Your task to perform on an android device: Set an alarm for 7pm Image 0: 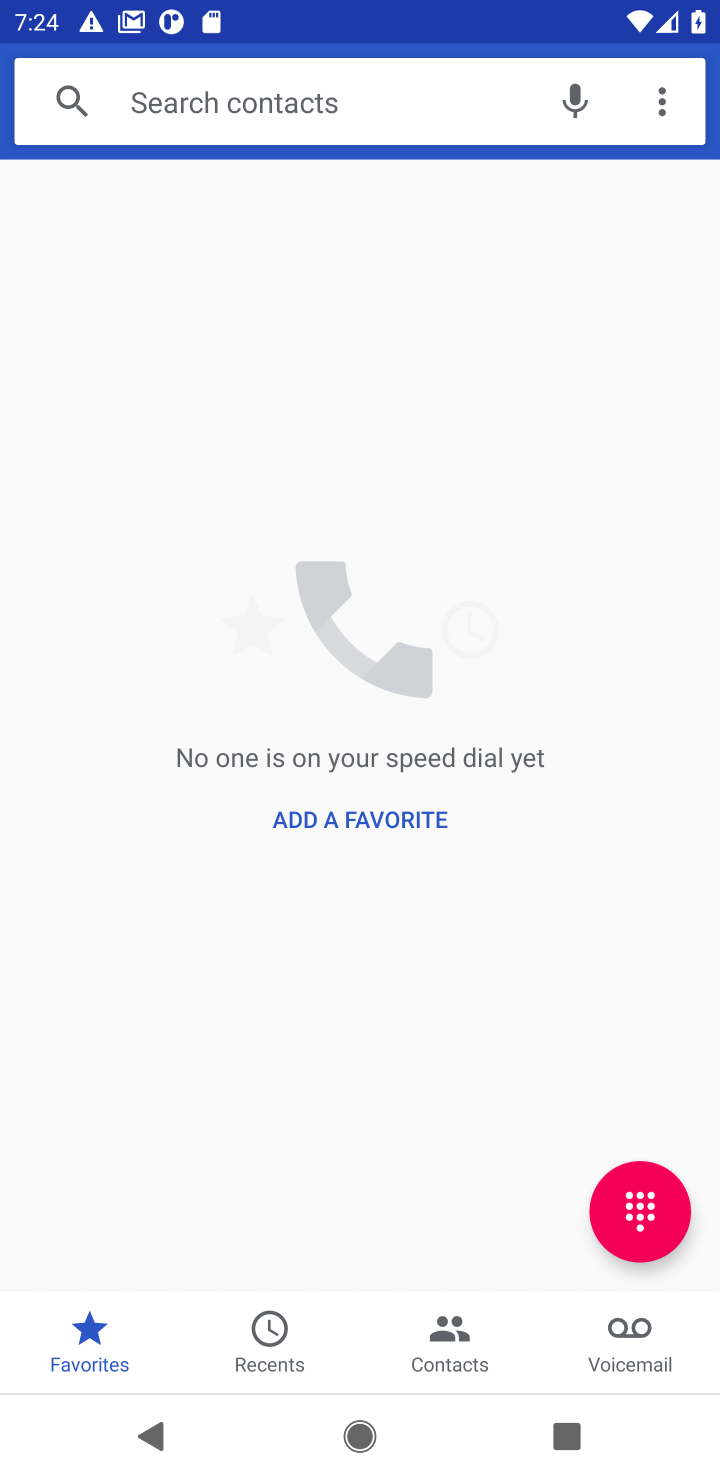
Step 0: press home button
Your task to perform on an android device: Set an alarm for 7pm Image 1: 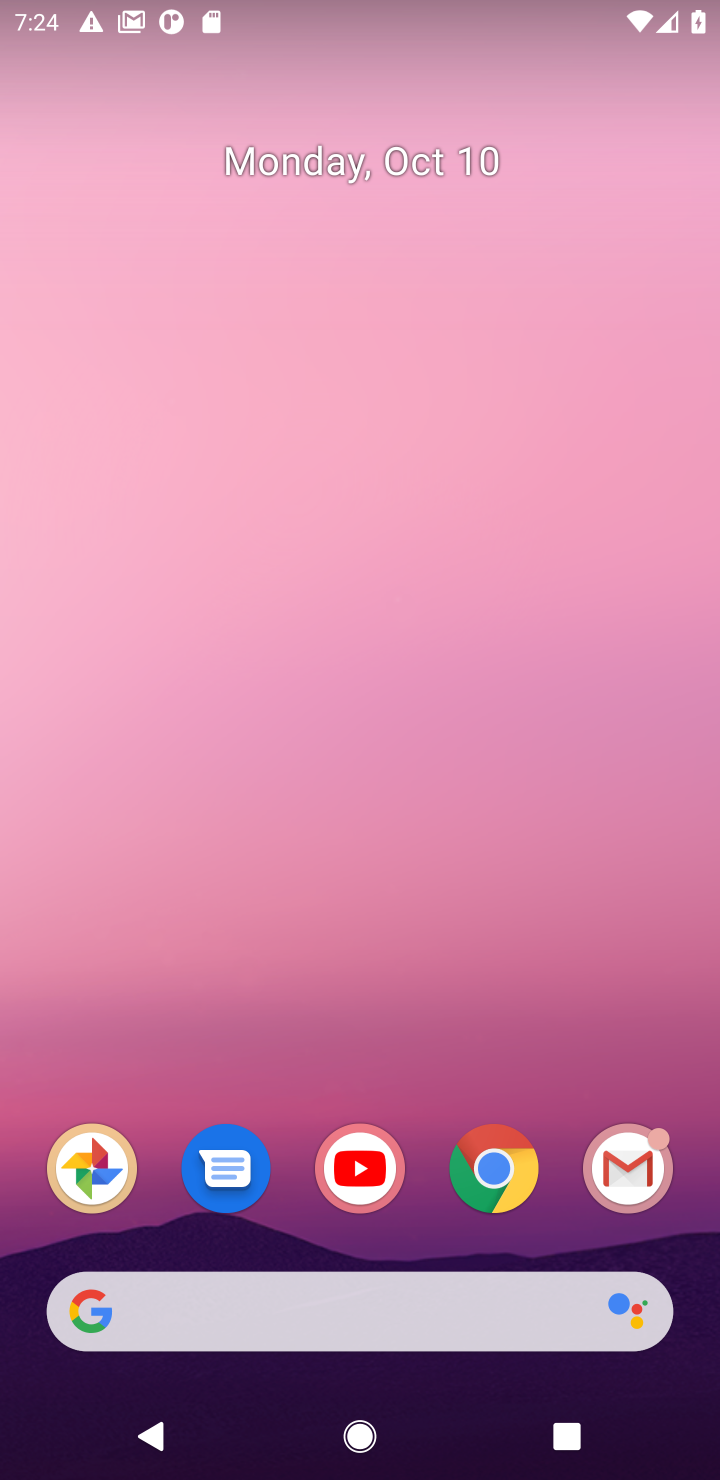
Step 1: drag from (398, 944) to (388, 51)
Your task to perform on an android device: Set an alarm for 7pm Image 2: 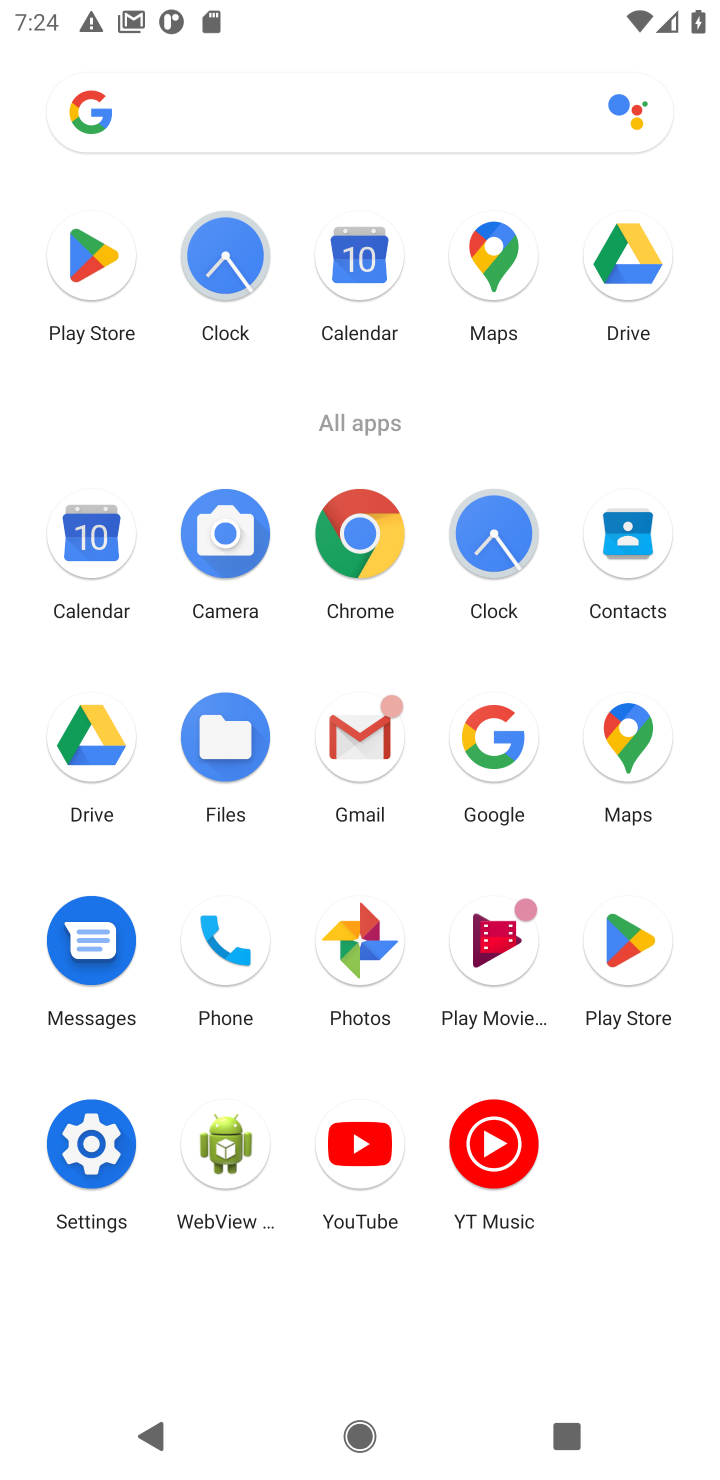
Step 2: click (224, 271)
Your task to perform on an android device: Set an alarm for 7pm Image 3: 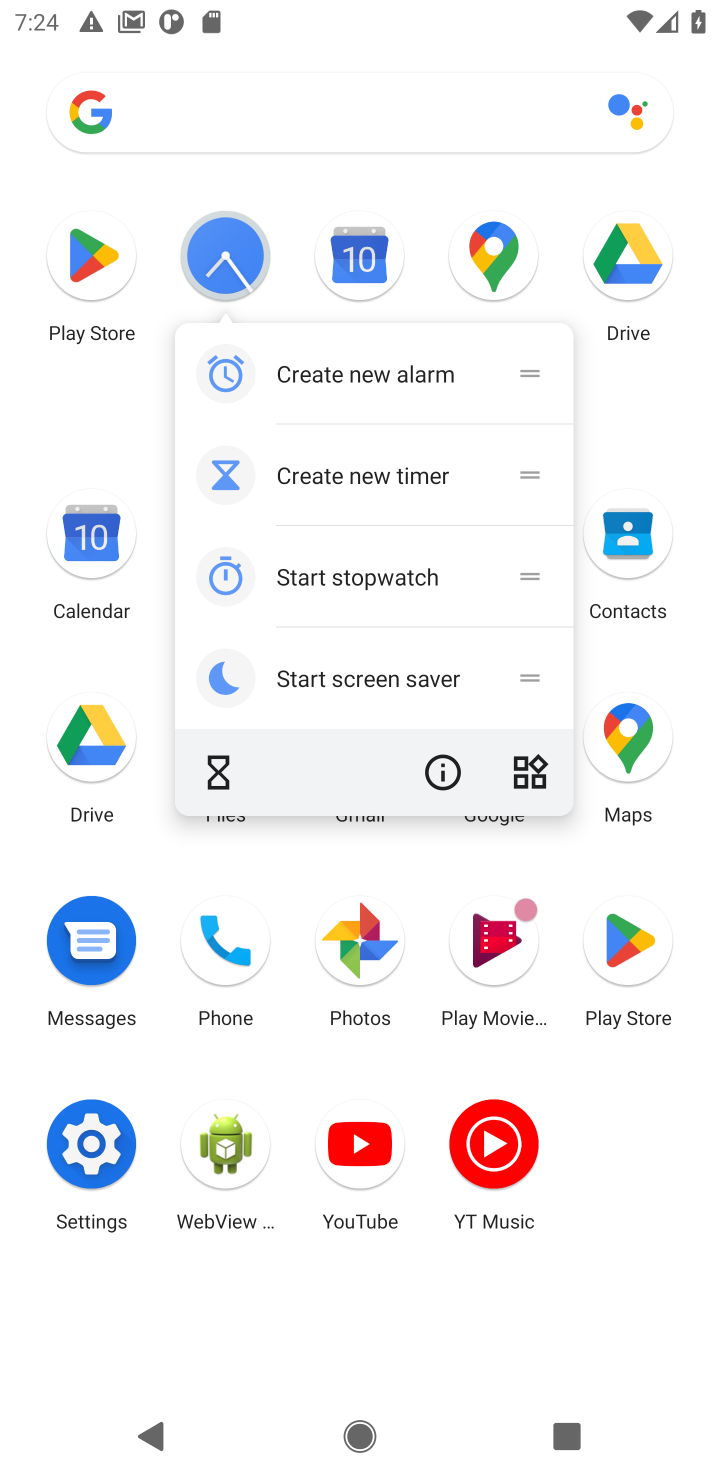
Step 3: click (226, 271)
Your task to perform on an android device: Set an alarm for 7pm Image 4: 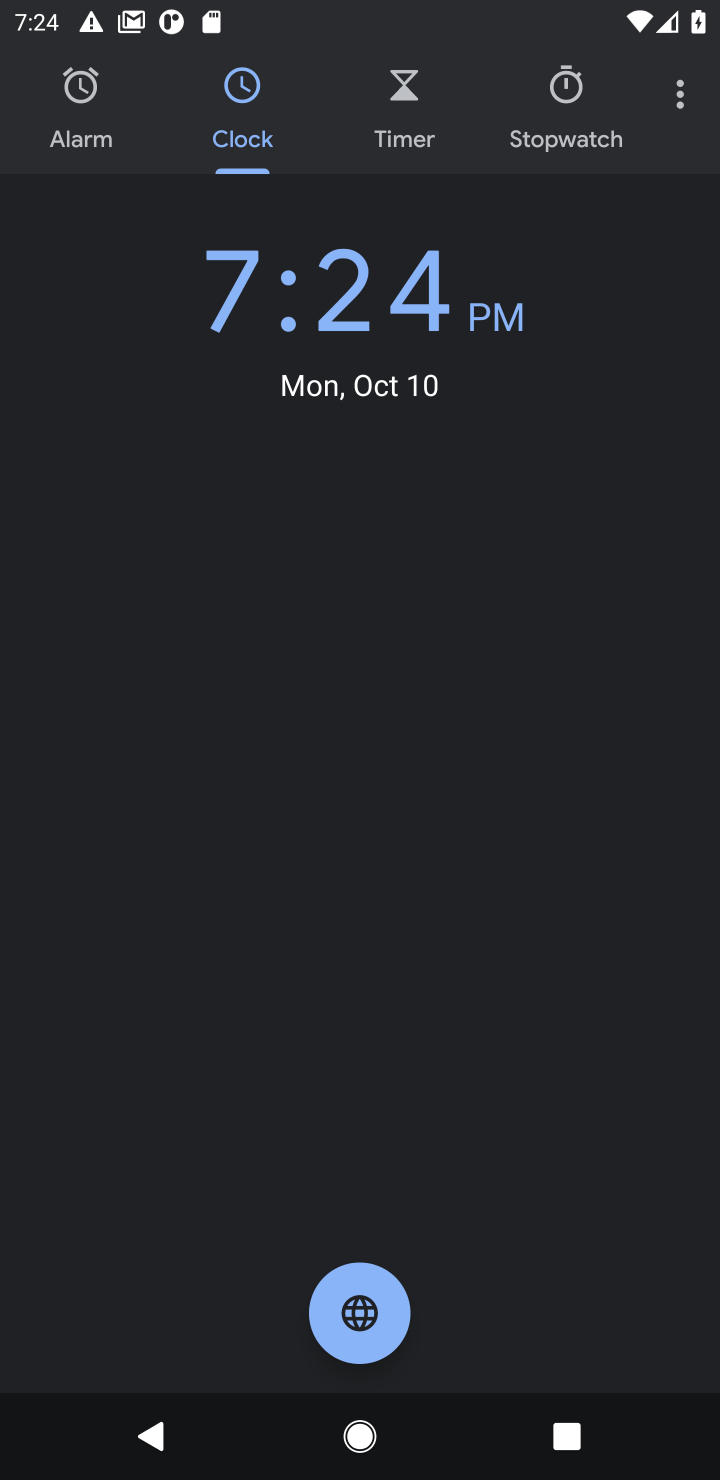
Step 4: click (53, 126)
Your task to perform on an android device: Set an alarm for 7pm Image 5: 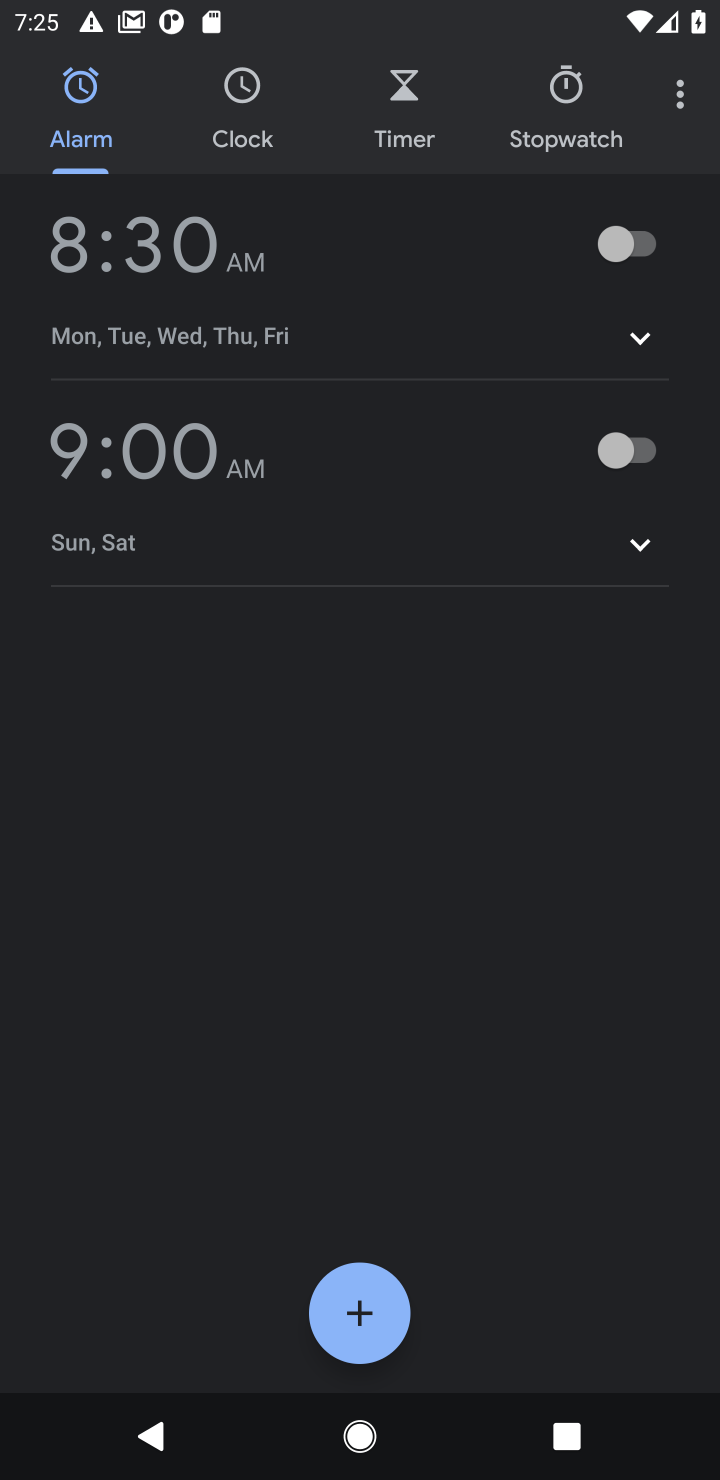
Step 5: click (358, 1317)
Your task to perform on an android device: Set an alarm for 7pm Image 6: 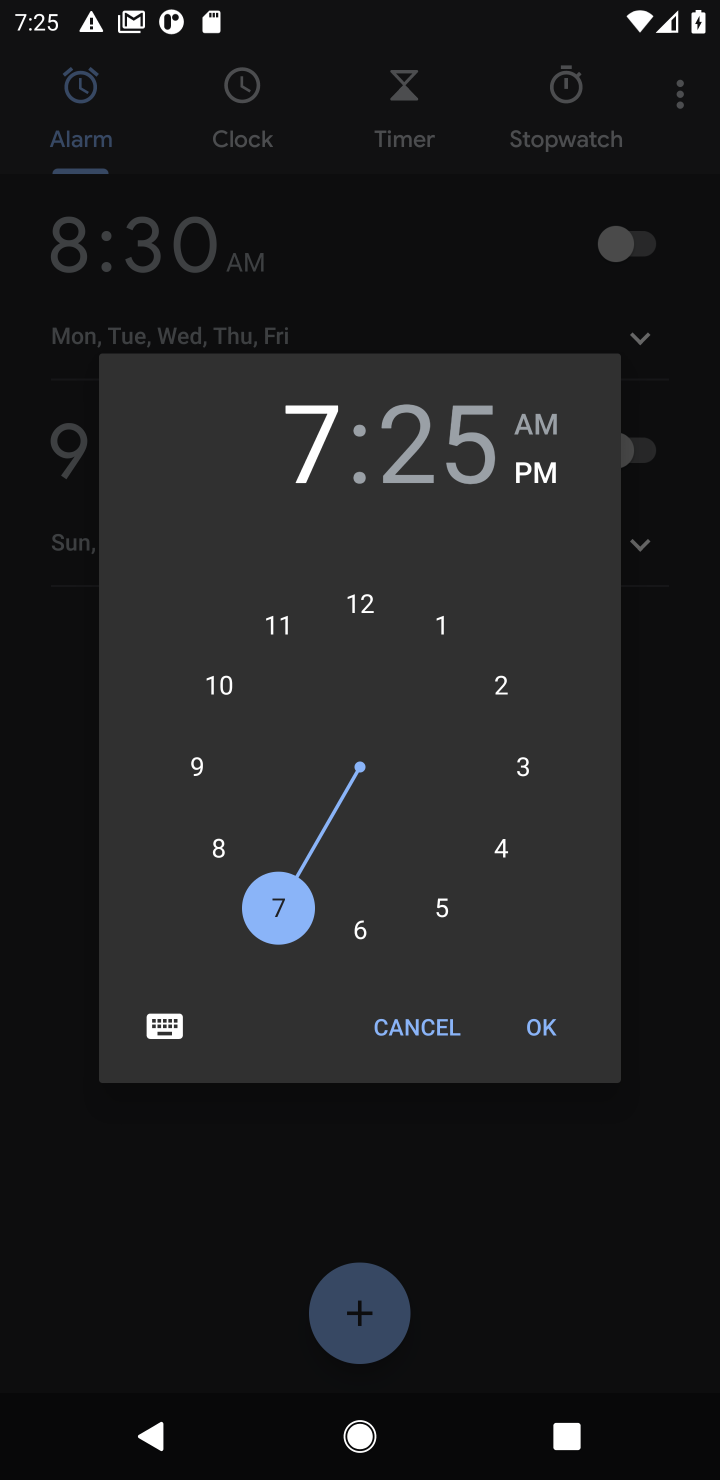
Step 6: click (291, 923)
Your task to perform on an android device: Set an alarm for 7pm Image 7: 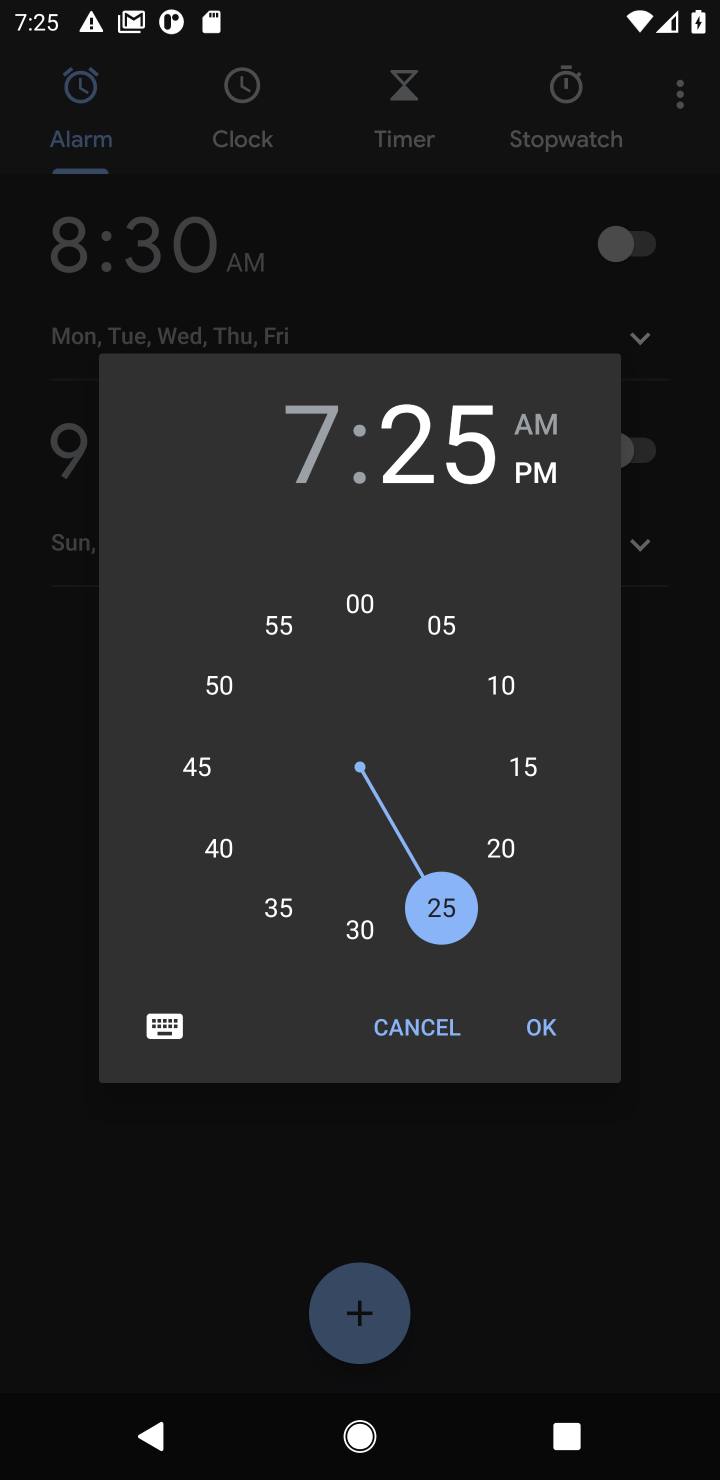
Step 7: click (351, 601)
Your task to perform on an android device: Set an alarm for 7pm Image 8: 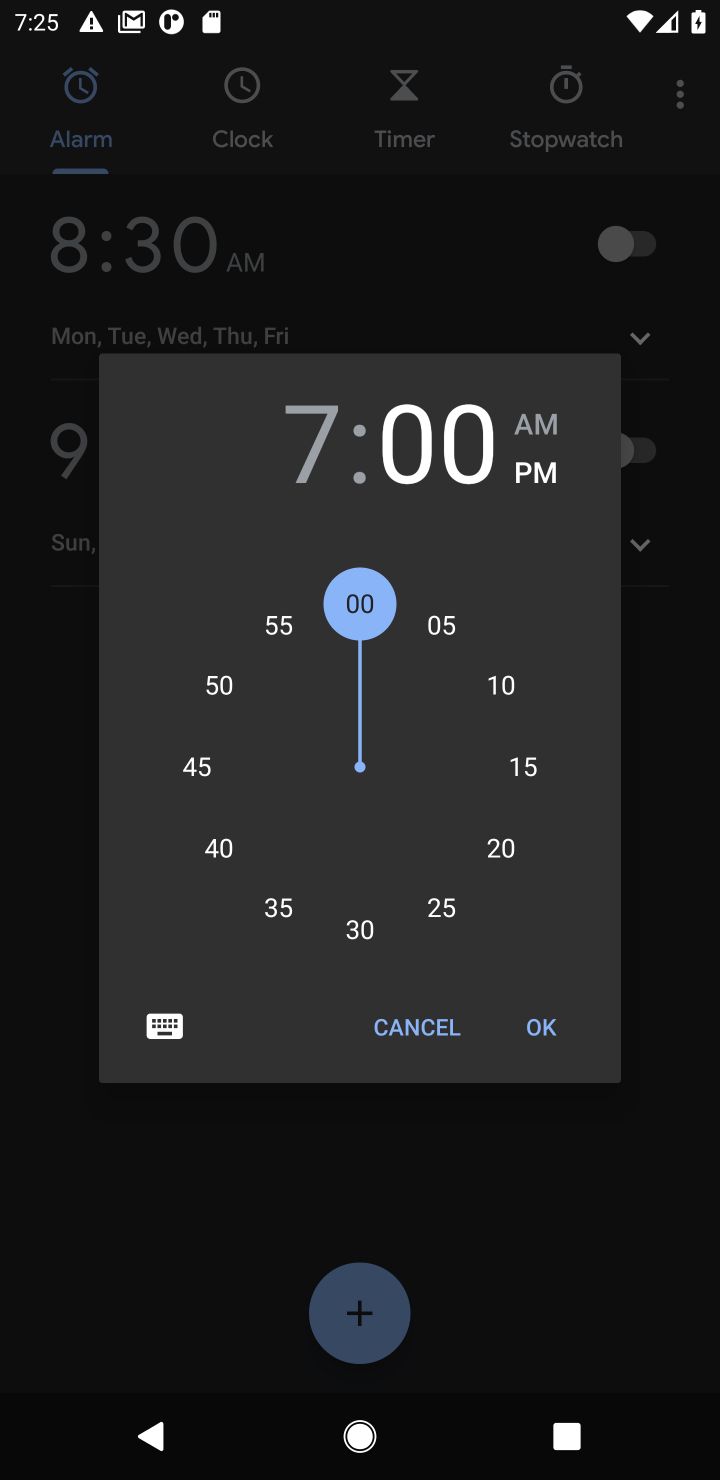
Step 8: click (532, 478)
Your task to perform on an android device: Set an alarm for 7pm Image 9: 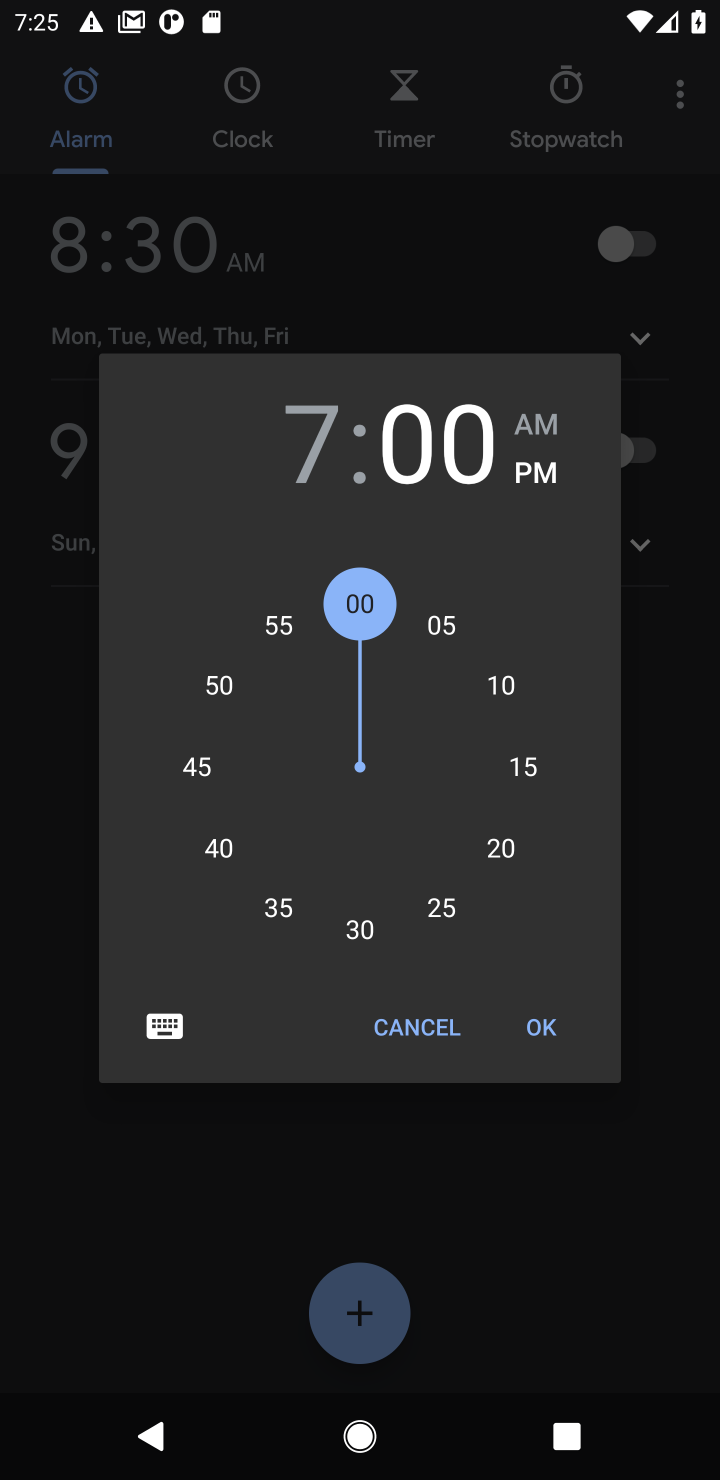
Step 9: click (537, 1031)
Your task to perform on an android device: Set an alarm for 7pm Image 10: 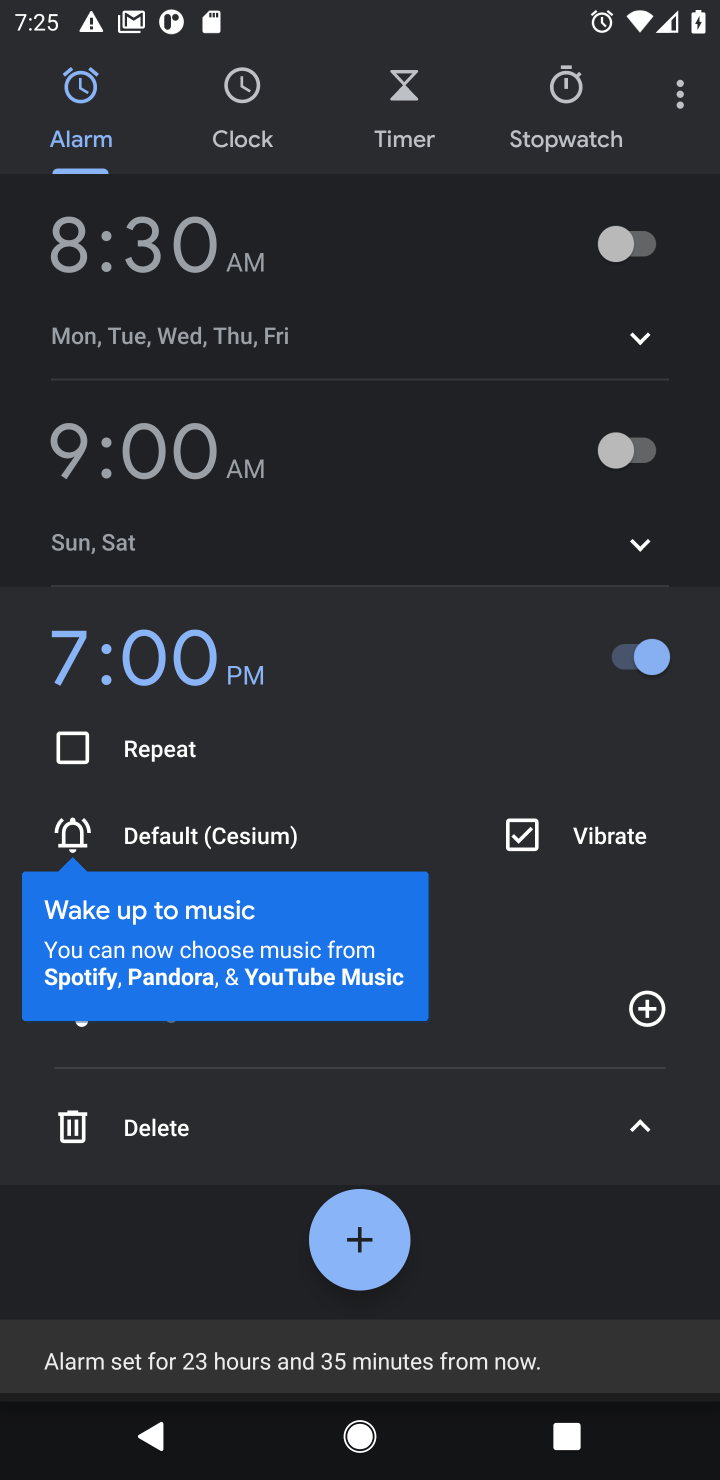
Step 10: task complete